Your task to perform on an android device: Open Chrome and go to settings Image 0: 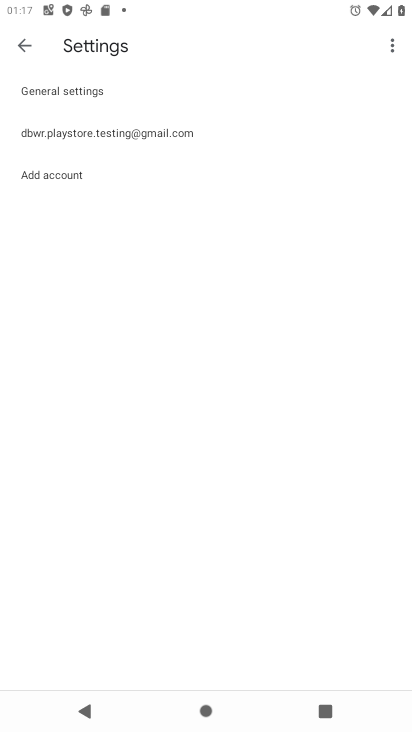
Step 0: press home button
Your task to perform on an android device: Open Chrome and go to settings Image 1: 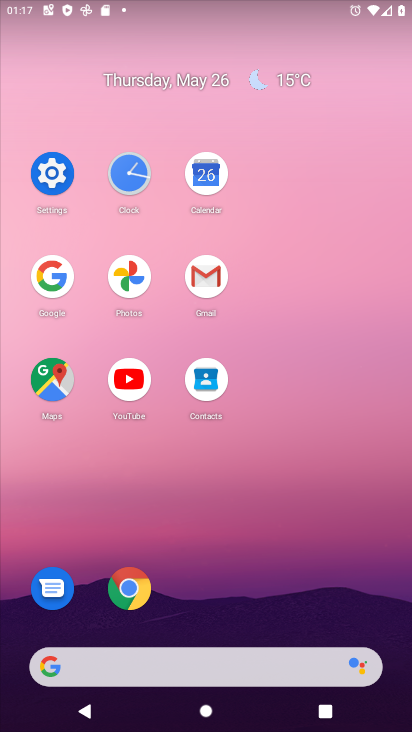
Step 1: click (153, 577)
Your task to perform on an android device: Open Chrome and go to settings Image 2: 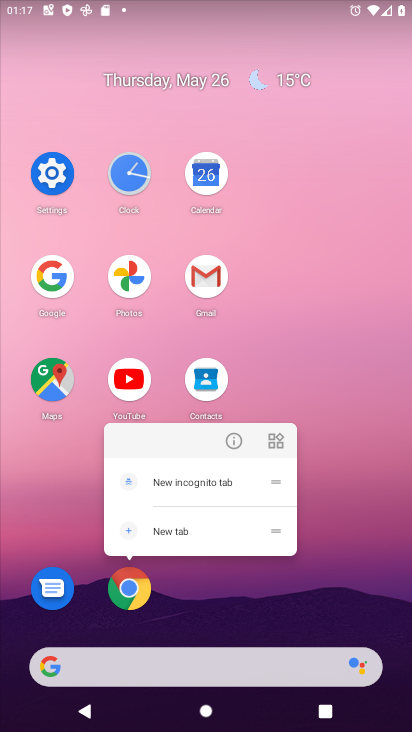
Step 2: click (130, 585)
Your task to perform on an android device: Open Chrome and go to settings Image 3: 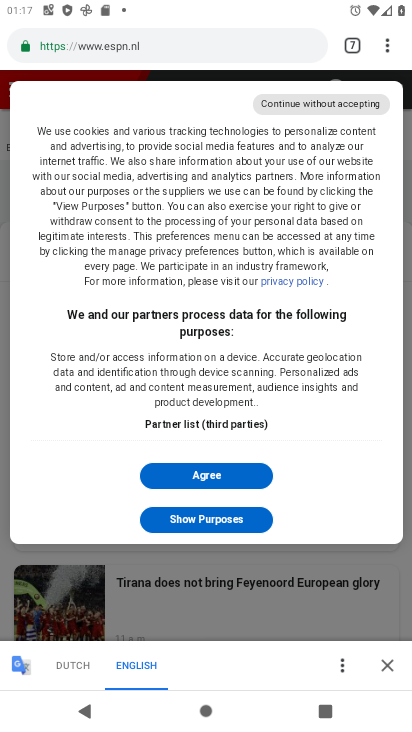
Step 3: click (387, 42)
Your task to perform on an android device: Open Chrome and go to settings Image 4: 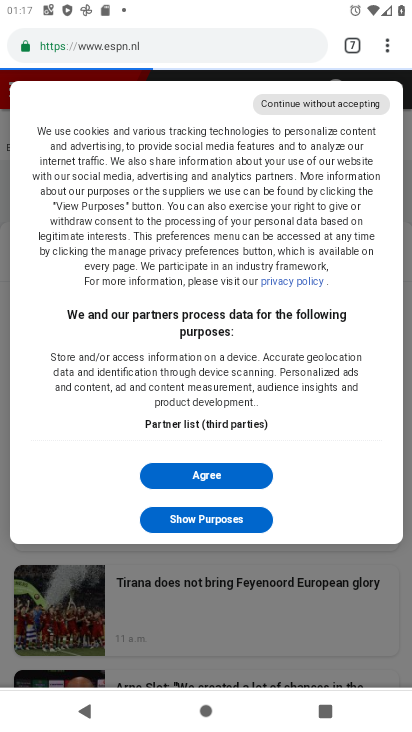
Step 4: click (389, 55)
Your task to perform on an android device: Open Chrome and go to settings Image 5: 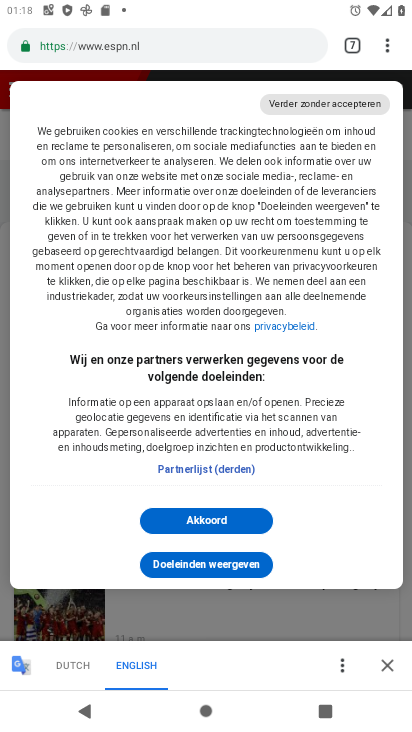
Step 5: click (388, 51)
Your task to perform on an android device: Open Chrome and go to settings Image 6: 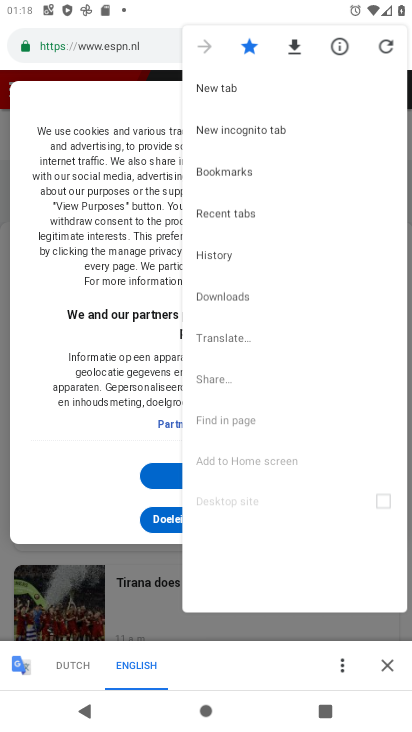
Step 6: click (390, 47)
Your task to perform on an android device: Open Chrome and go to settings Image 7: 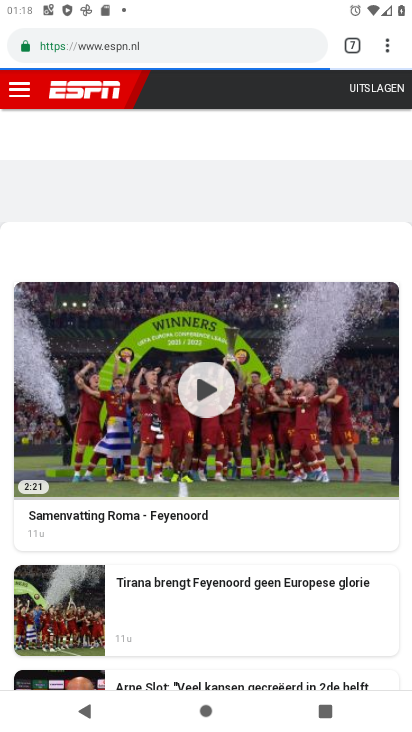
Step 7: click (397, 40)
Your task to perform on an android device: Open Chrome and go to settings Image 8: 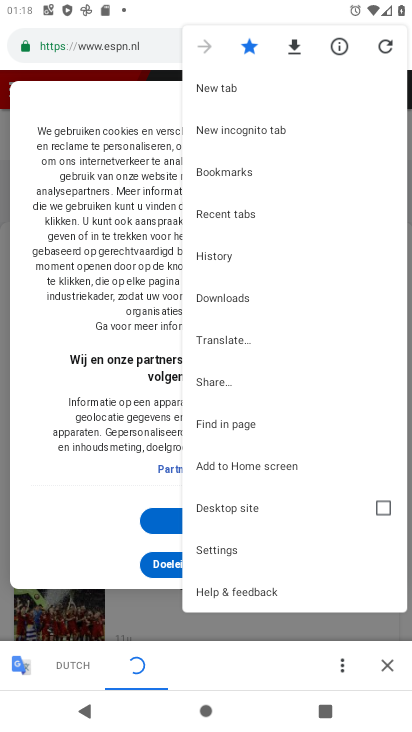
Step 8: click (250, 547)
Your task to perform on an android device: Open Chrome and go to settings Image 9: 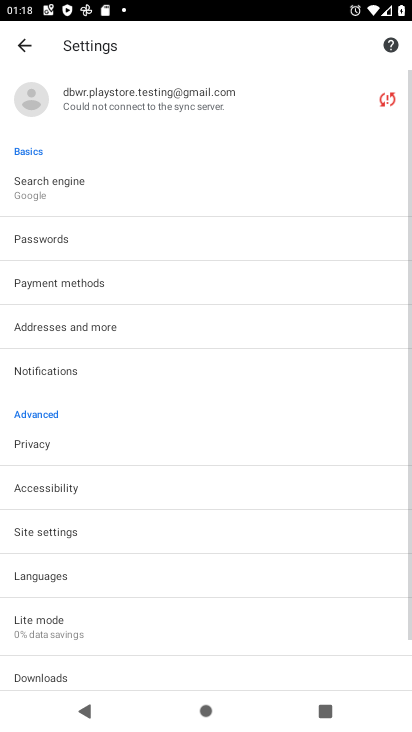
Step 9: task complete